Your task to perform on an android device: toggle javascript in the chrome app Image 0: 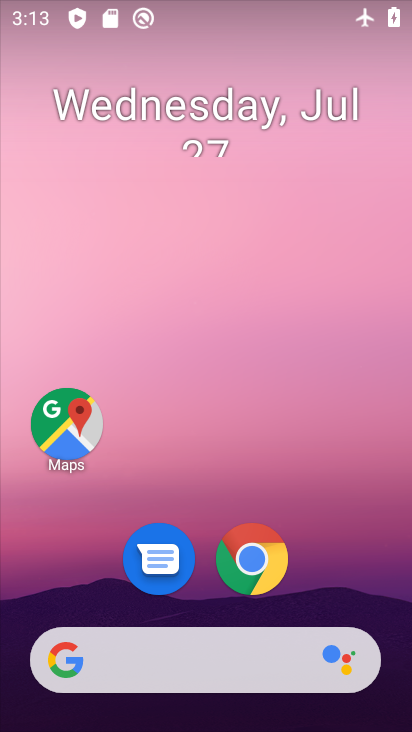
Step 0: click (253, 567)
Your task to perform on an android device: toggle javascript in the chrome app Image 1: 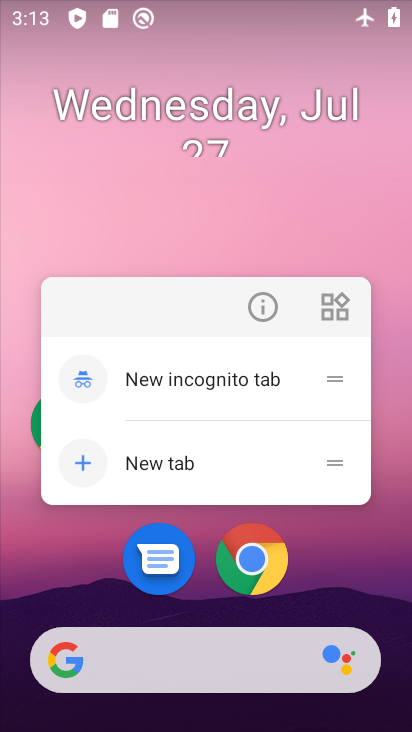
Step 1: click (248, 567)
Your task to perform on an android device: toggle javascript in the chrome app Image 2: 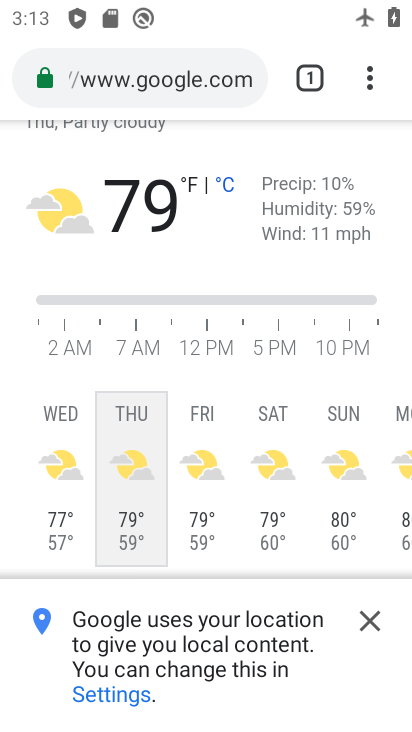
Step 2: click (364, 71)
Your task to perform on an android device: toggle javascript in the chrome app Image 3: 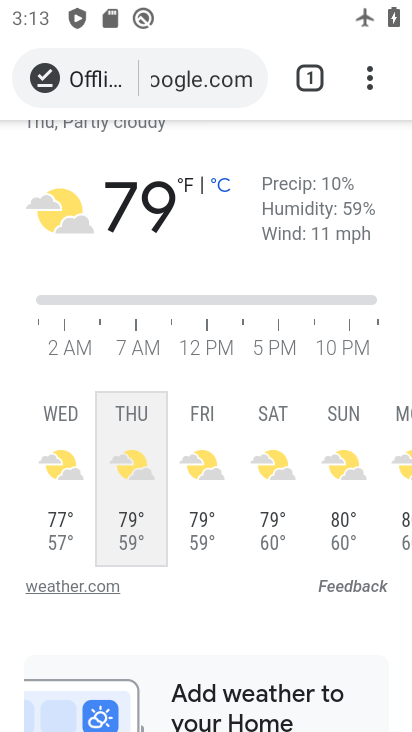
Step 3: drag from (375, 73) to (162, 597)
Your task to perform on an android device: toggle javascript in the chrome app Image 4: 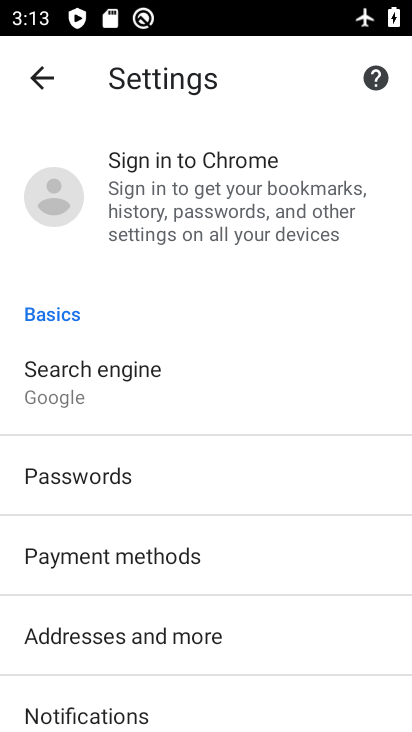
Step 4: drag from (179, 704) to (265, 182)
Your task to perform on an android device: toggle javascript in the chrome app Image 5: 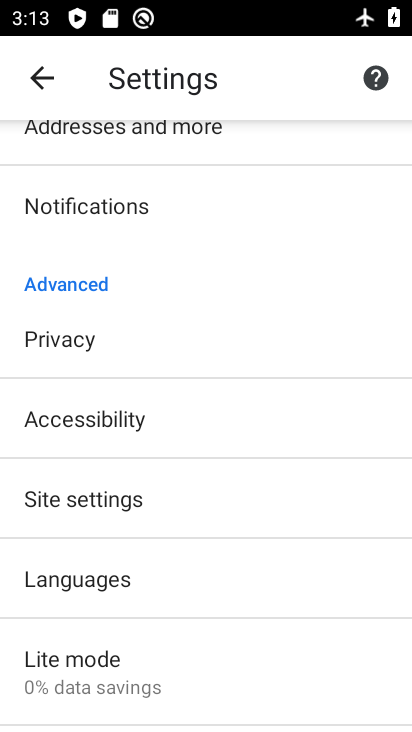
Step 5: drag from (151, 631) to (293, 155)
Your task to perform on an android device: toggle javascript in the chrome app Image 6: 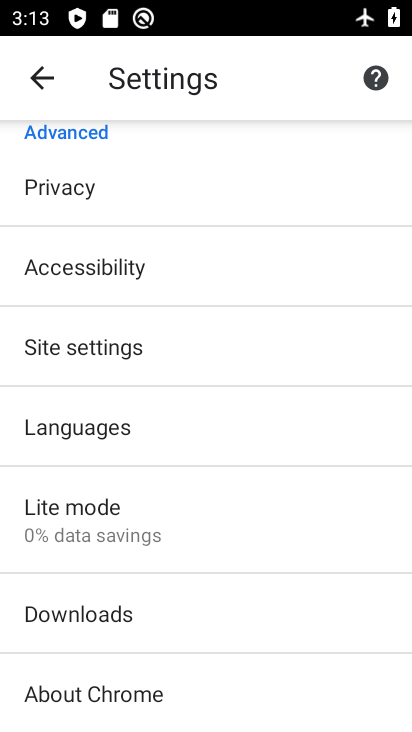
Step 6: drag from (293, 156) to (270, 625)
Your task to perform on an android device: toggle javascript in the chrome app Image 7: 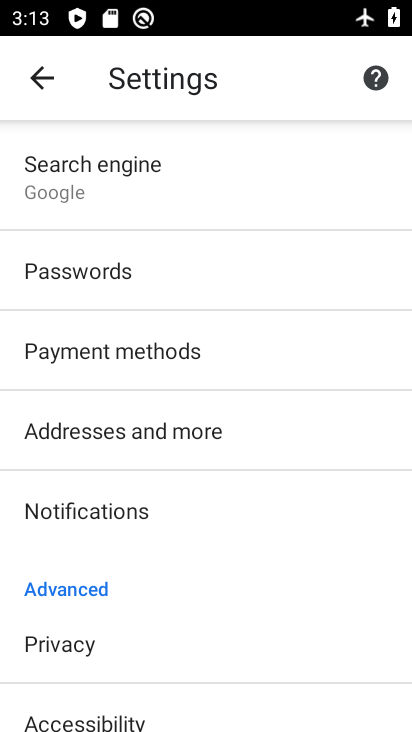
Step 7: drag from (120, 678) to (229, 255)
Your task to perform on an android device: toggle javascript in the chrome app Image 8: 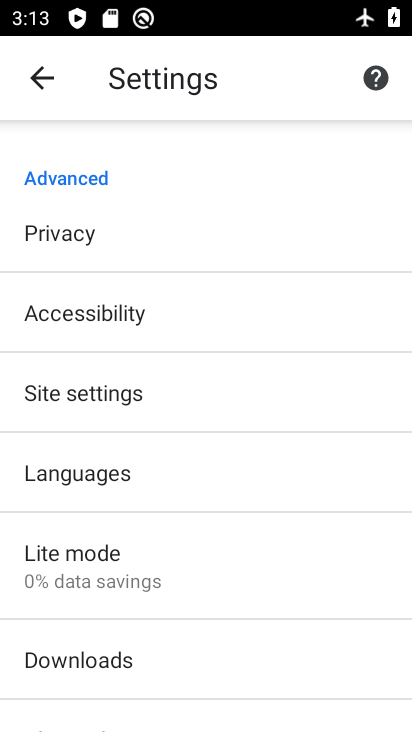
Step 8: click (33, 411)
Your task to perform on an android device: toggle javascript in the chrome app Image 9: 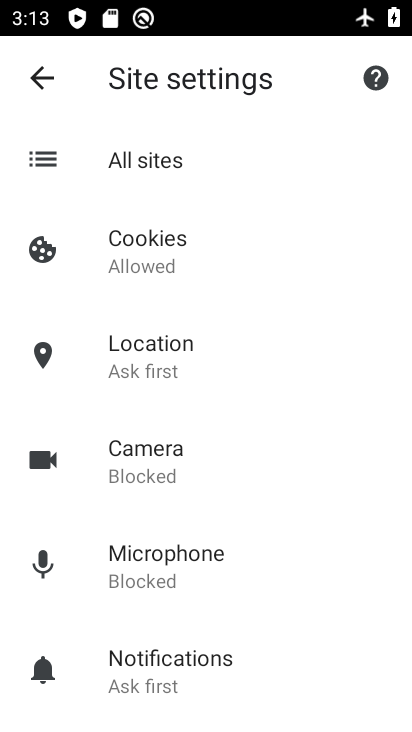
Step 9: drag from (161, 684) to (293, 265)
Your task to perform on an android device: toggle javascript in the chrome app Image 10: 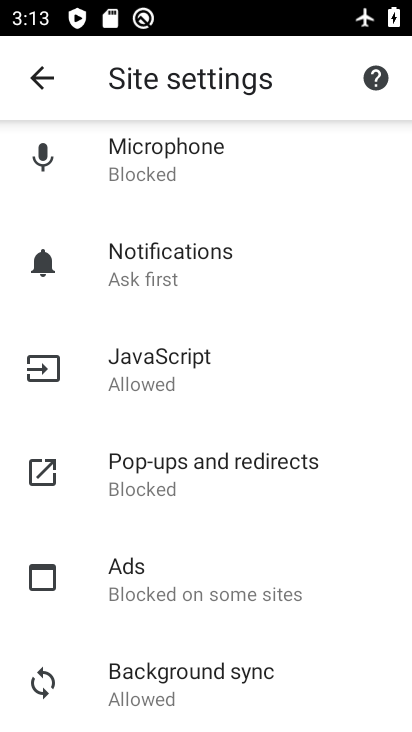
Step 10: click (199, 362)
Your task to perform on an android device: toggle javascript in the chrome app Image 11: 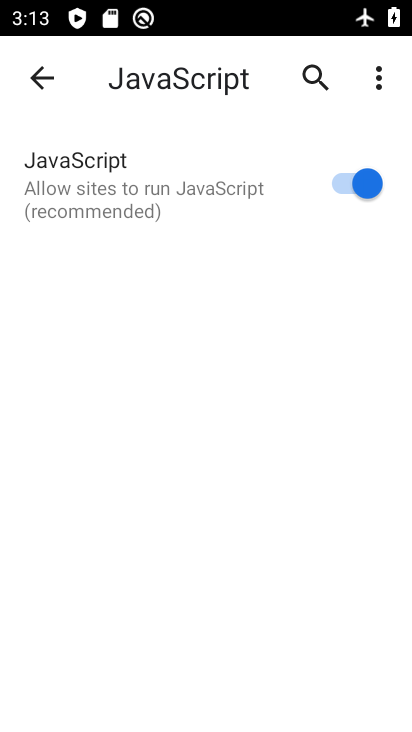
Step 11: click (359, 206)
Your task to perform on an android device: toggle javascript in the chrome app Image 12: 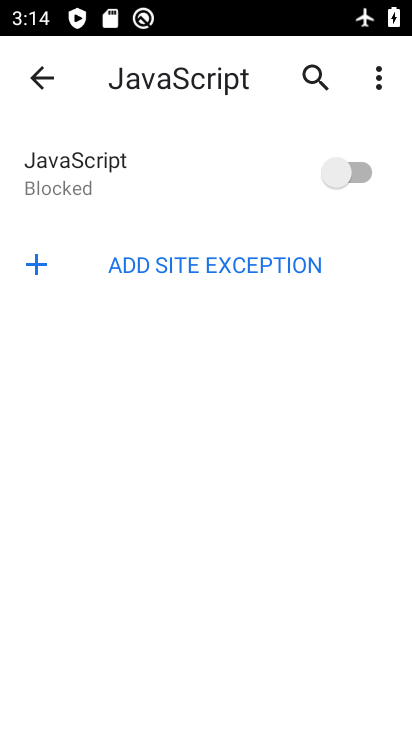
Step 12: task complete